Your task to perform on an android device: Open the calendar and show me this week's events? Image 0: 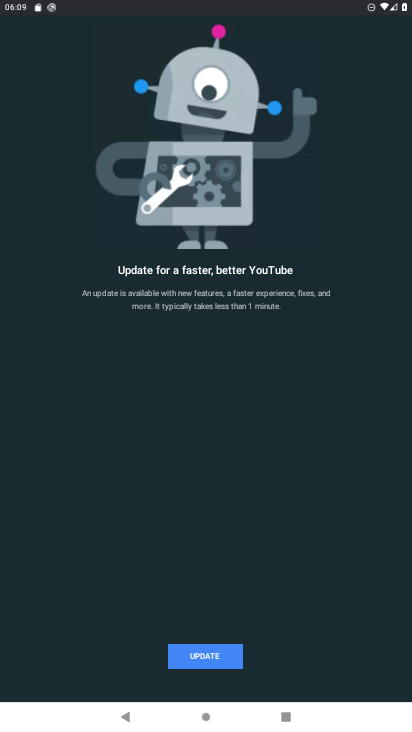
Step 0: press home button
Your task to perform on an android device: Open the calendar and show me this week's events? Image 1: 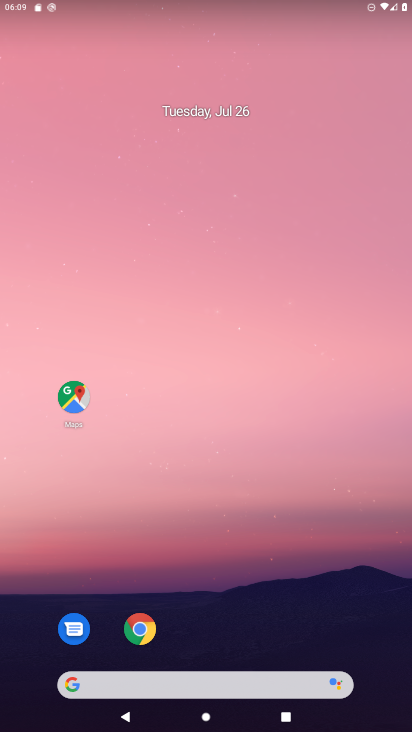
Step 1: drag from (191, 568) to (206, 234)
Your task to perform on an android device: Open the calendar and show me this week's events? Image 2: 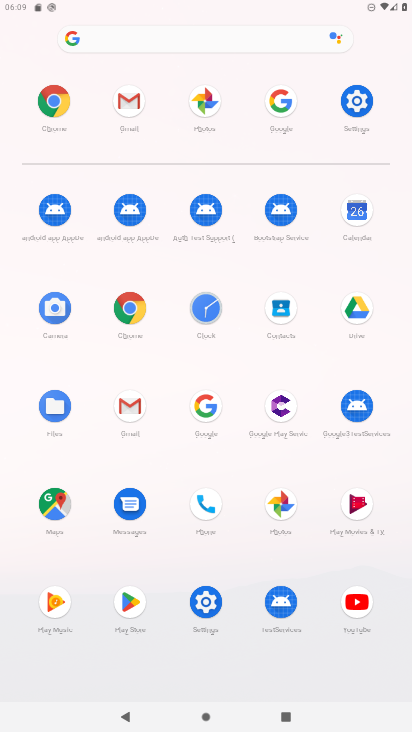
Step 2: click (350, 215)
Your task to perform on an android device: Open the calendar and show me this week's events? Image 3: 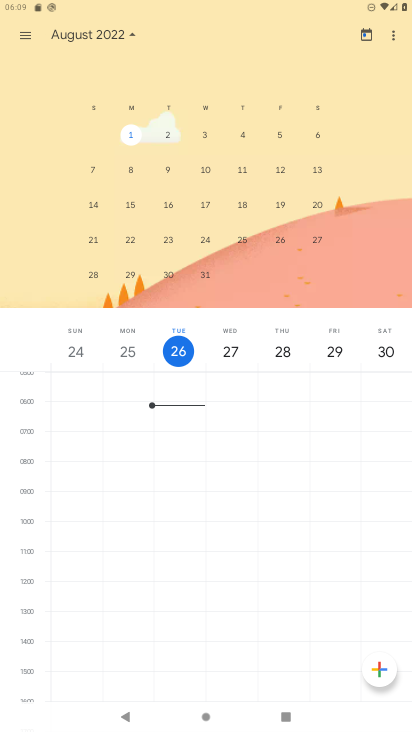
Step 3: drag from (102, 175) to (380, 170)
Your task to perform on an android device: Open the calendar and show me this week's events? Image 4: 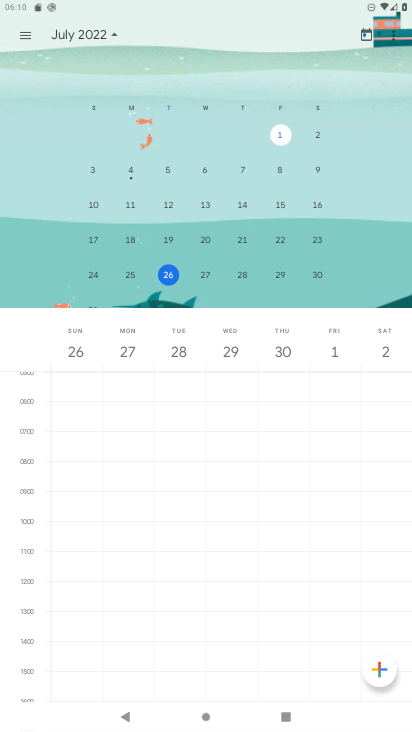
Step 4: click (93, 277)
Your task to perform on an android device: Open the calendar and show me this week's events? Image 5: 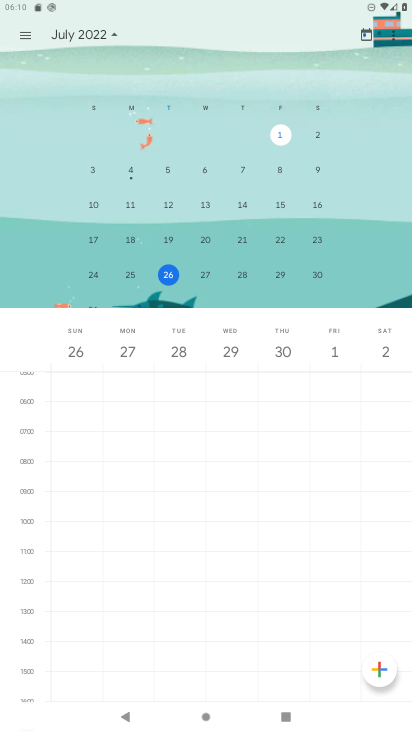
Step 5: click (93, 277)
Your task to perform on an android device: Open the calendar and show me this week's events? Image 6: 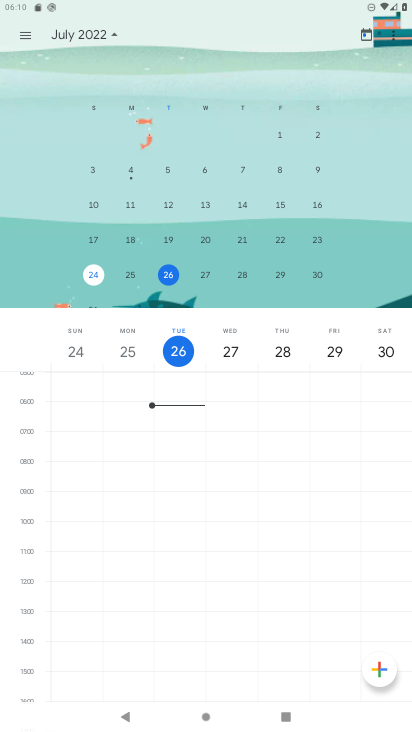
Step 6: task complete